Your task to perform on an android device: Is it going to rain today? Image 0: 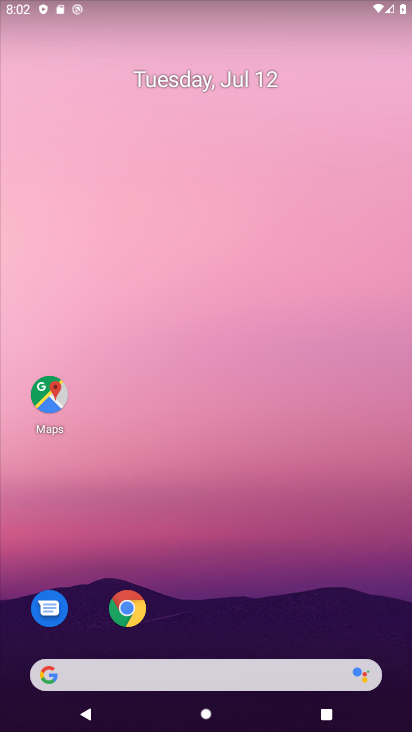
Step 0: press home button
Your task to perform on an android device: Is it going to rain today? Image 1: 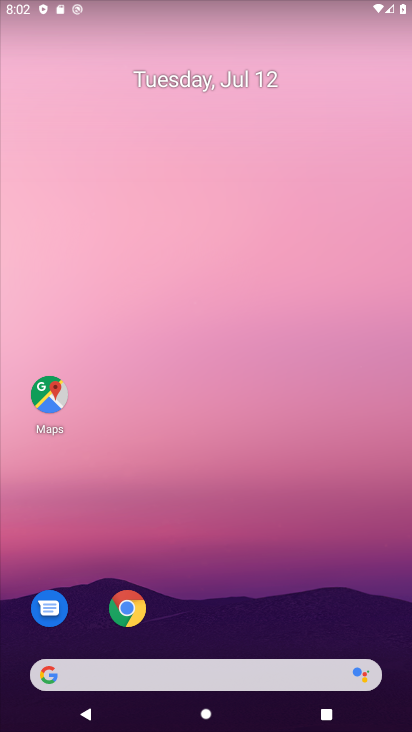
Step 1: click (50, 676)
Your task to perform on an android device: Is it going to rain today? Image 2: 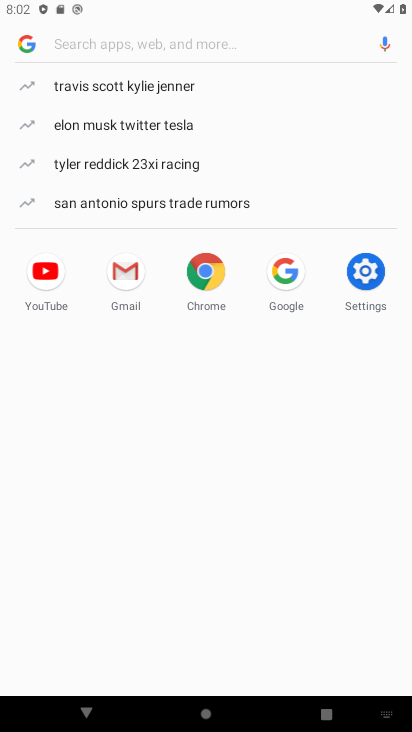
Step 2: click (170, 43)
Your task to perform on an android device: Is it going to rain today? Image 3: 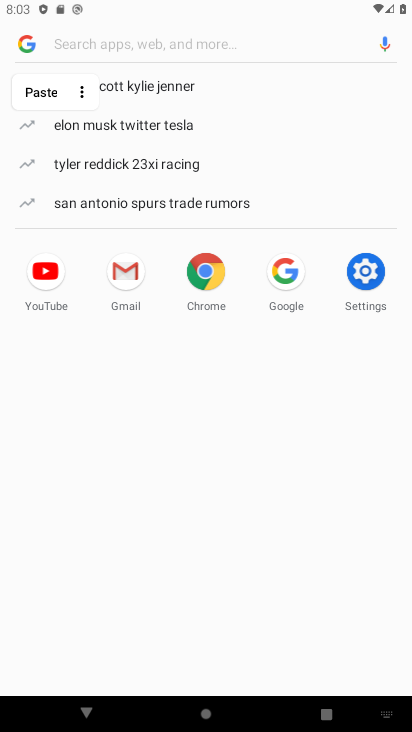
Step 3: type "Is it going to rain today"
Your task to perform on an android device: Is it going to rain today? Image 4: 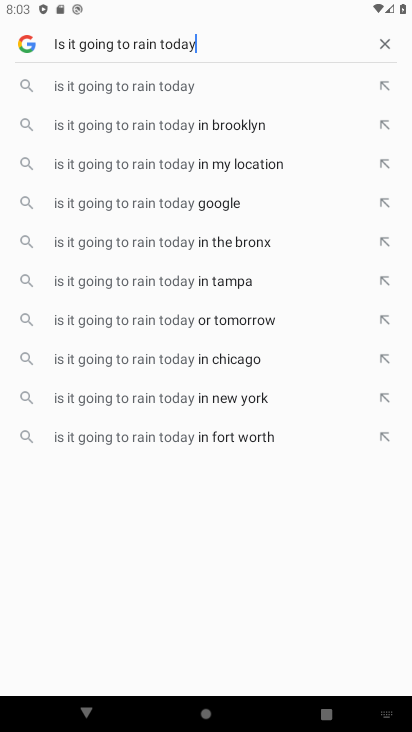
Step 4: click (143, 85)
Your task to perform on an android device: Is it going to rain today? Image 5: 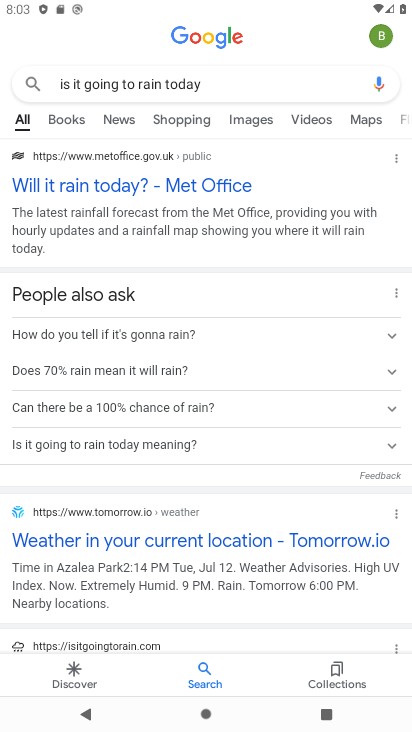
Step 5: click (133, 180)
Your task to perform on an android device: Is it going to rain today? Image 6: 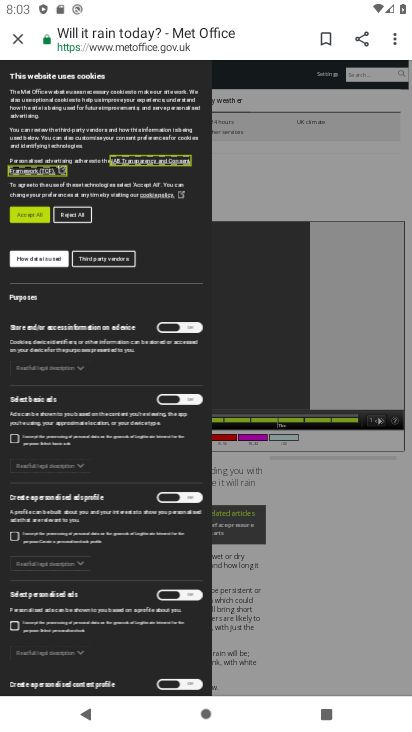
Step 6: task complete